Your task to perform on an android device: Show me popular games on the Play Store Image 0: 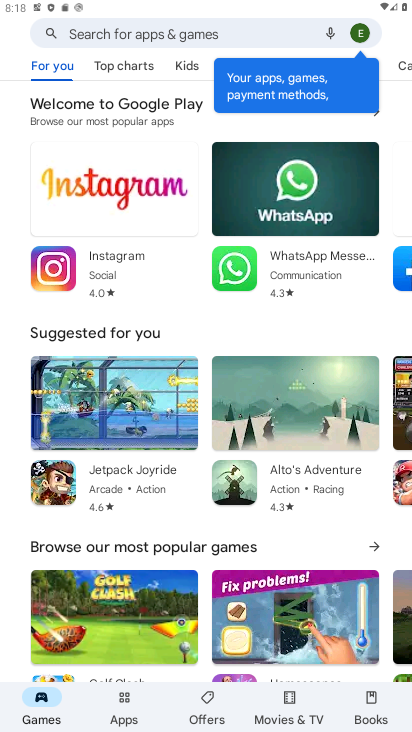
Step 0: click (148, 32)
Your task to perform on an android device: Show me popular games on the Play Store Image 1: 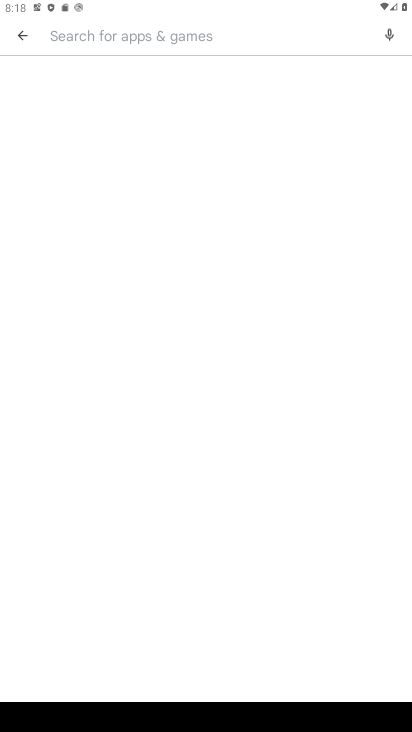
Step 1: type " popular games"
Your task to perform on an android device: Show me popular games on the Play Store Image 2: 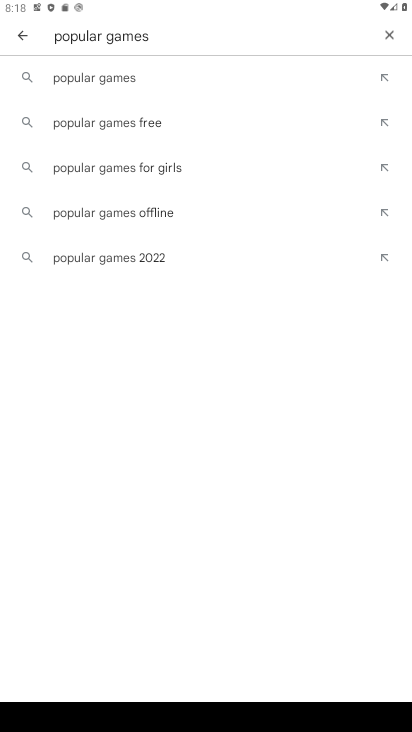
Step 2: click (128, 82)
Your task to perform on an android device: Show me popular games on the Play Store Image 3: 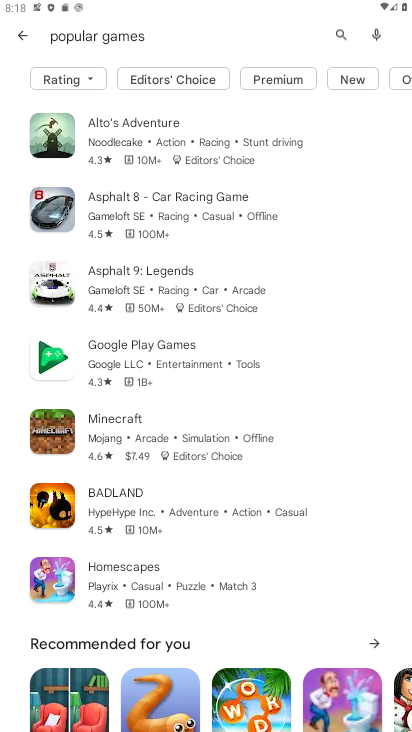
Step 3: task complete